Your task to perform on an android device: Empty the shopping cart on amazon. Search for lenovo thinkpad on amazon, select the first entry, and add it to the cart. Image 0: 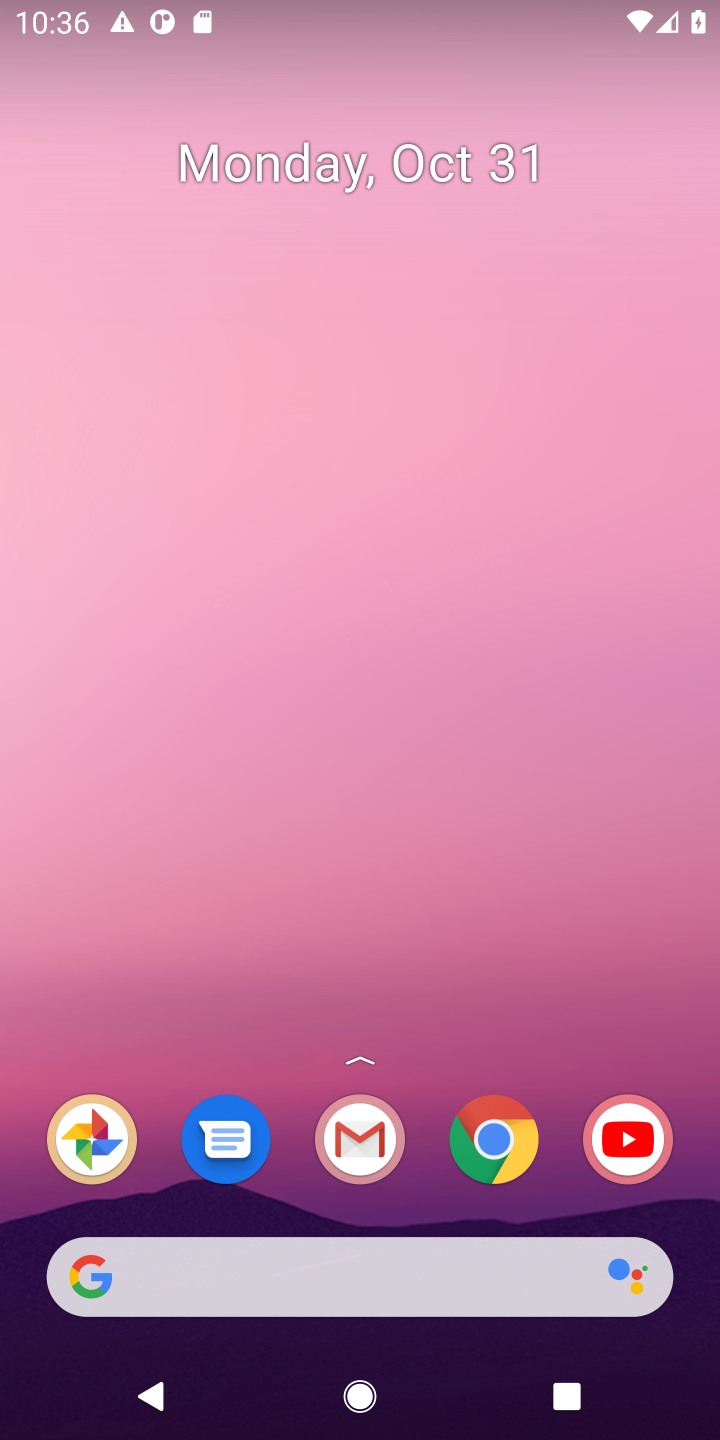
Step 0: press home button
Your task to perform on an android device: Empty the shopping cart on amazon. Search for lenovo thinkpad on amazon, select the first entry, and add it to the cart. Image 1: 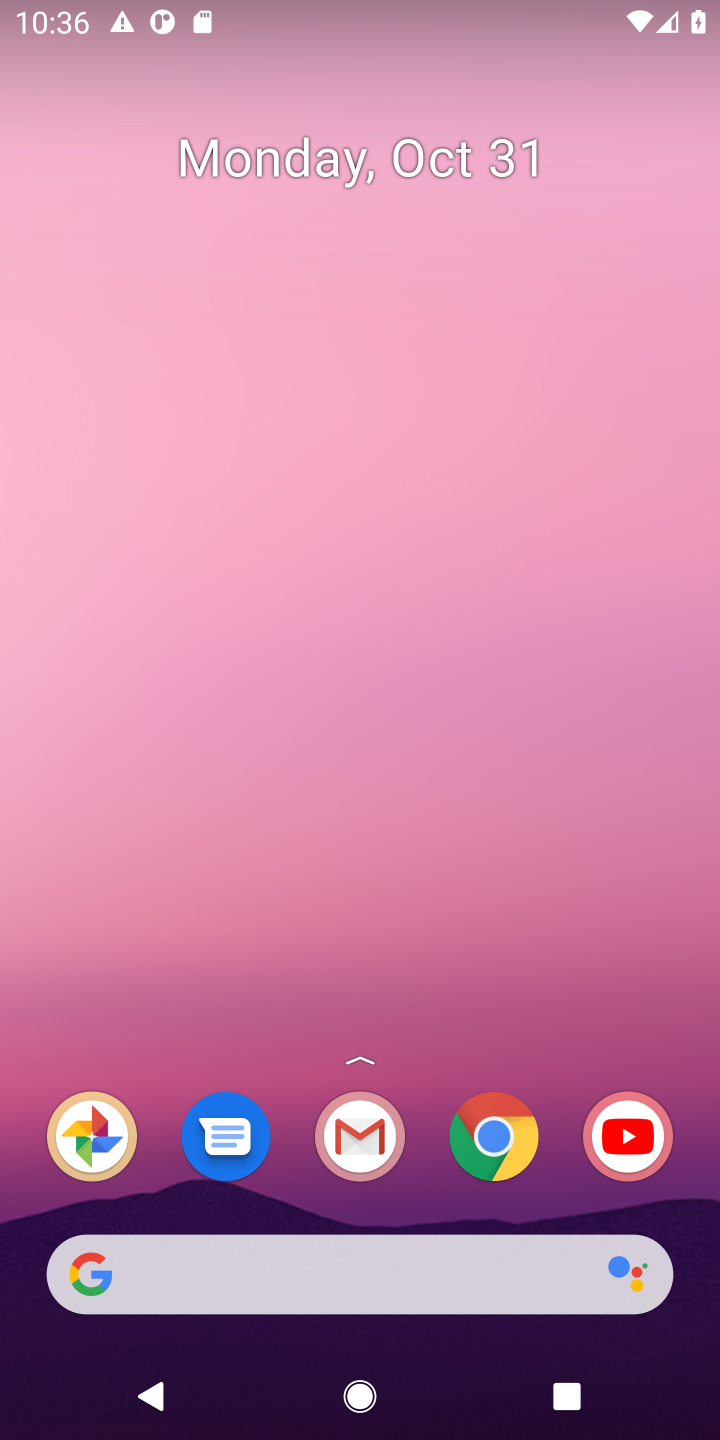
Step 1: click (126, 1264)
Your task to perform on an android device: Empty the shopping cart on amazon. Search for lenovo thinkpad on amazon, select the first entry, and add it to the cart. Image 2: 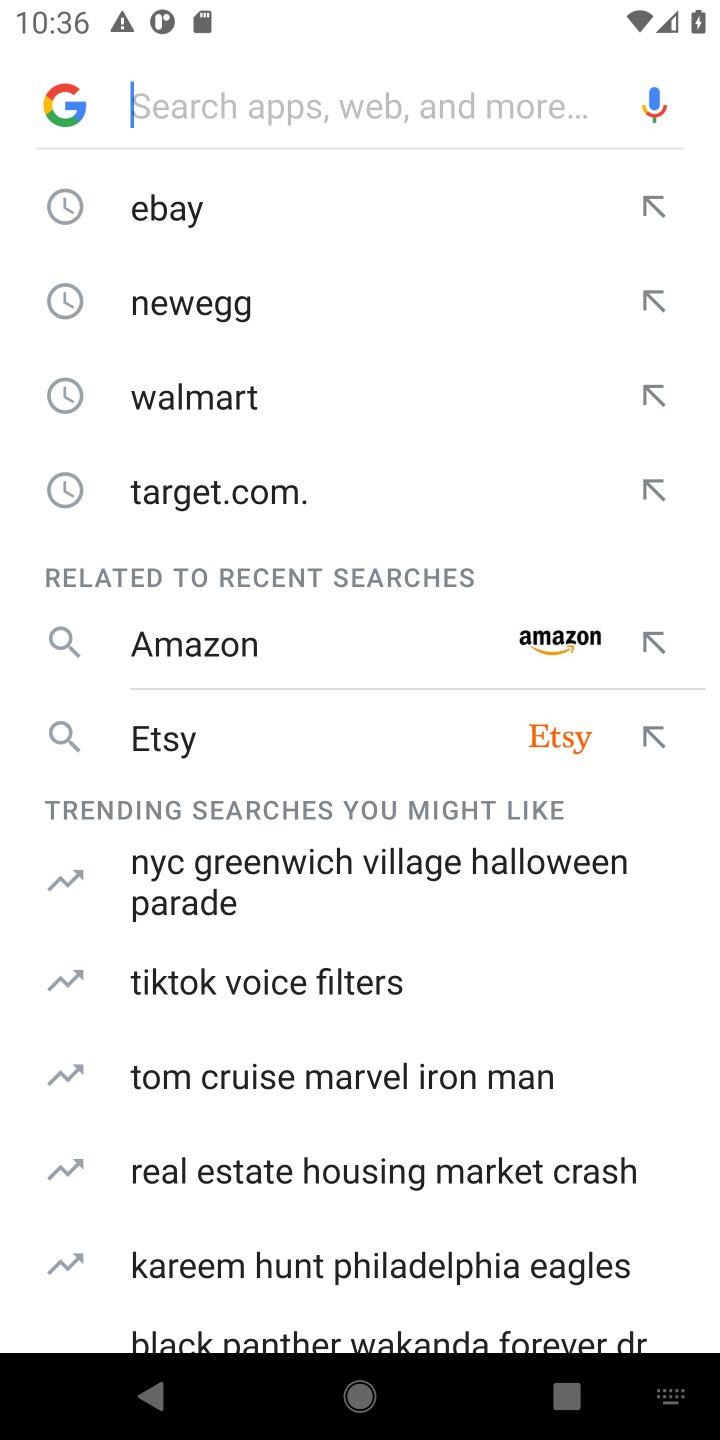
Step 2: type " amazon"
Your task to perform on an android device: Empty the shopping cart on amazon. Search for lenovo thinkpad on amazon, select the first entry, and add it to the cart. Image 3: 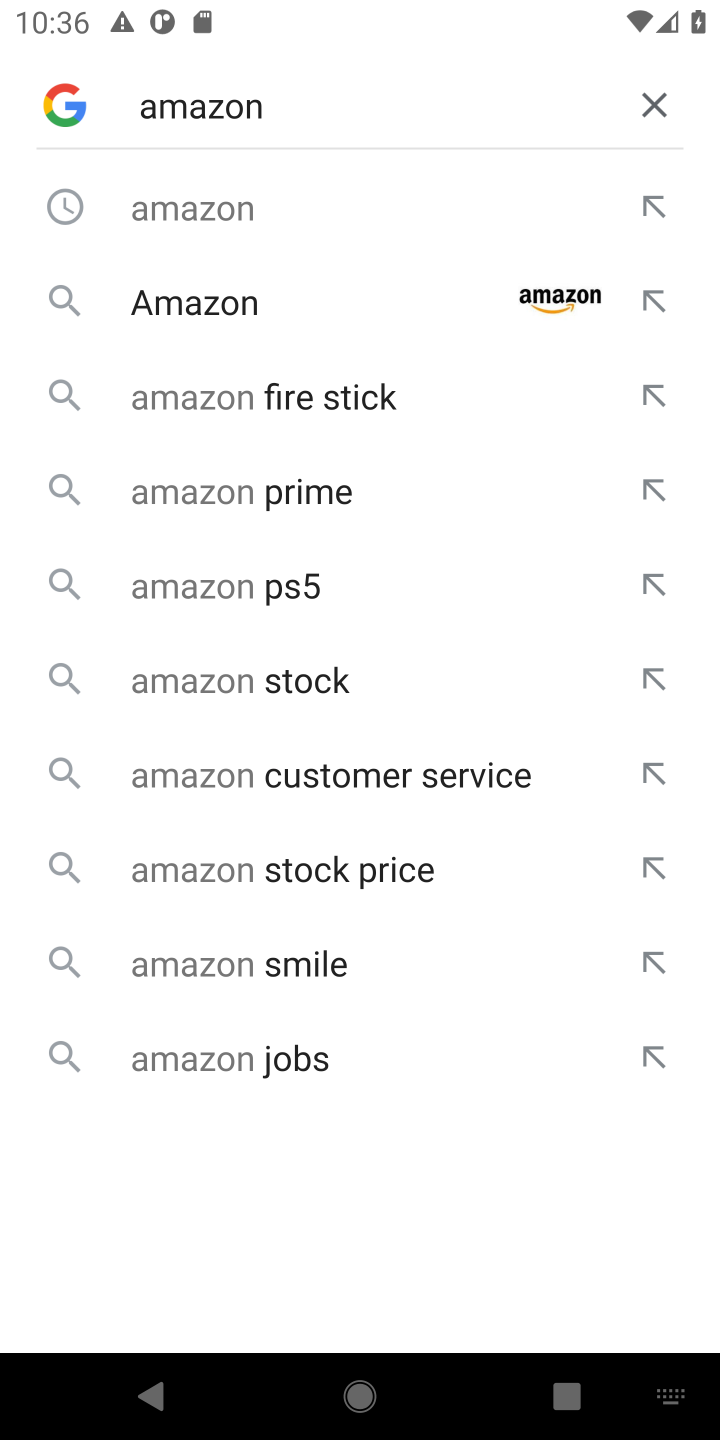
Step 3: press enter
Your task to perform on an android device: Empty the shopping cart on amazon. Search for lenovo thinkpad on amazon, select the first entry, and add it to the cart. Image 4: 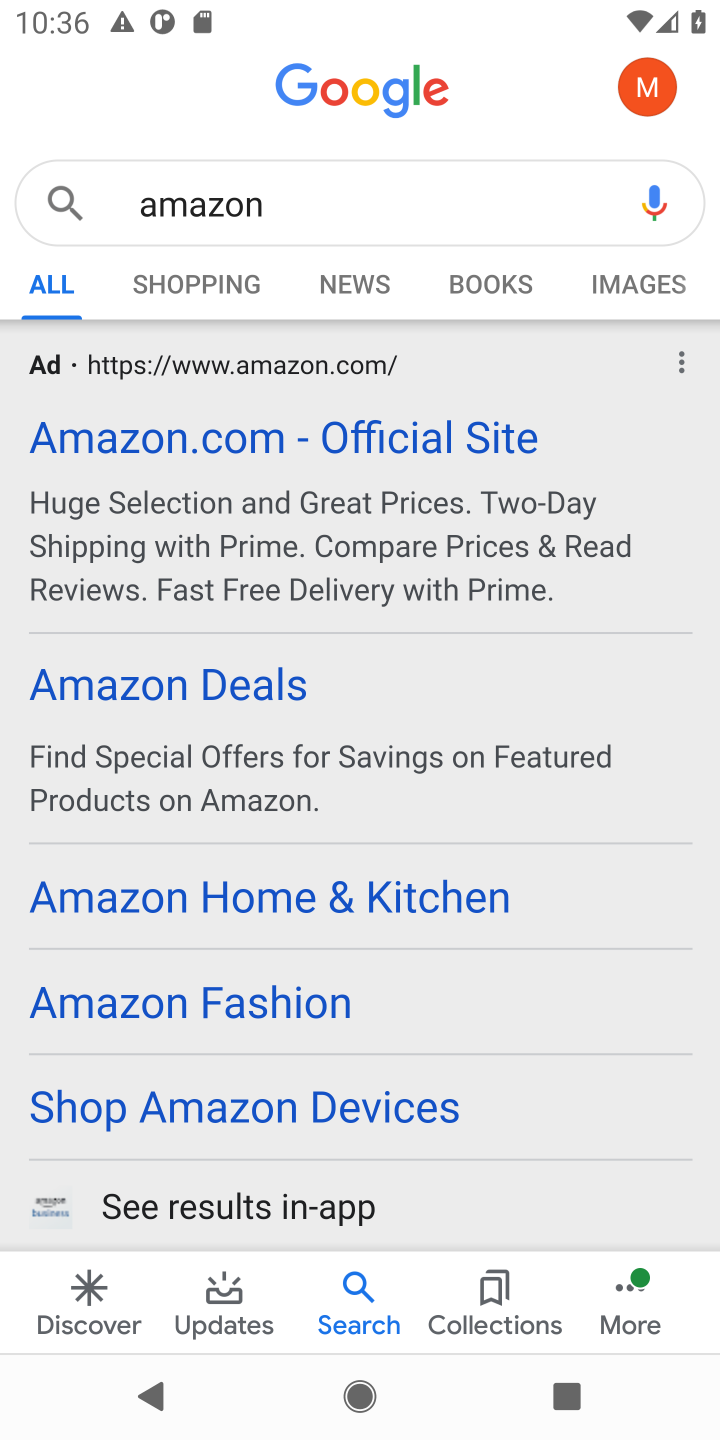
Step 4: click (247, 435)
Your task to perform on an android device: Empty the shopping cart on amazon. Search for lenovo thinkpad on amazon, select the first entry, and add it to the cart. Image 5: 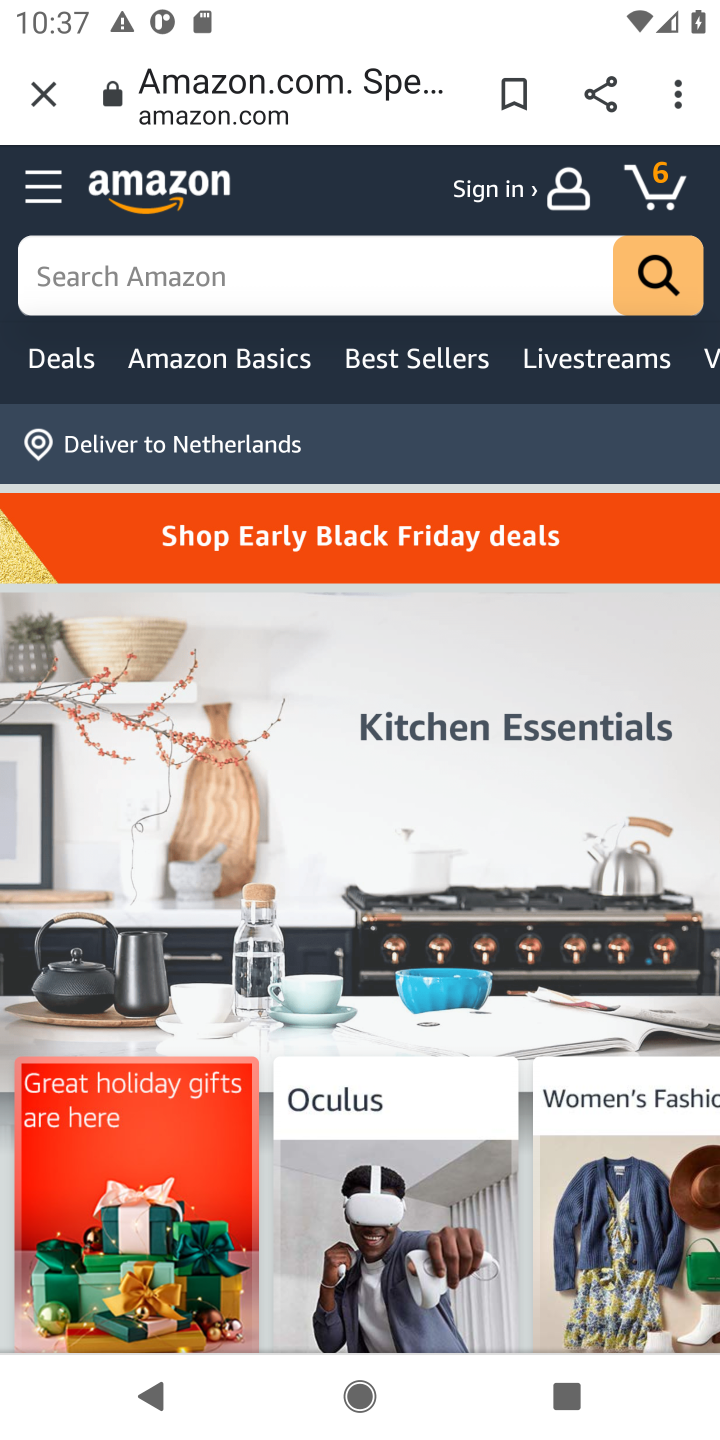
Step 5: click (647, 171)
Your task to perform on an android device: Empty the shopping cart on amazon. Search for lenovo thinkpad on amazon, select the first entry, and add it to the cart. Image 6: 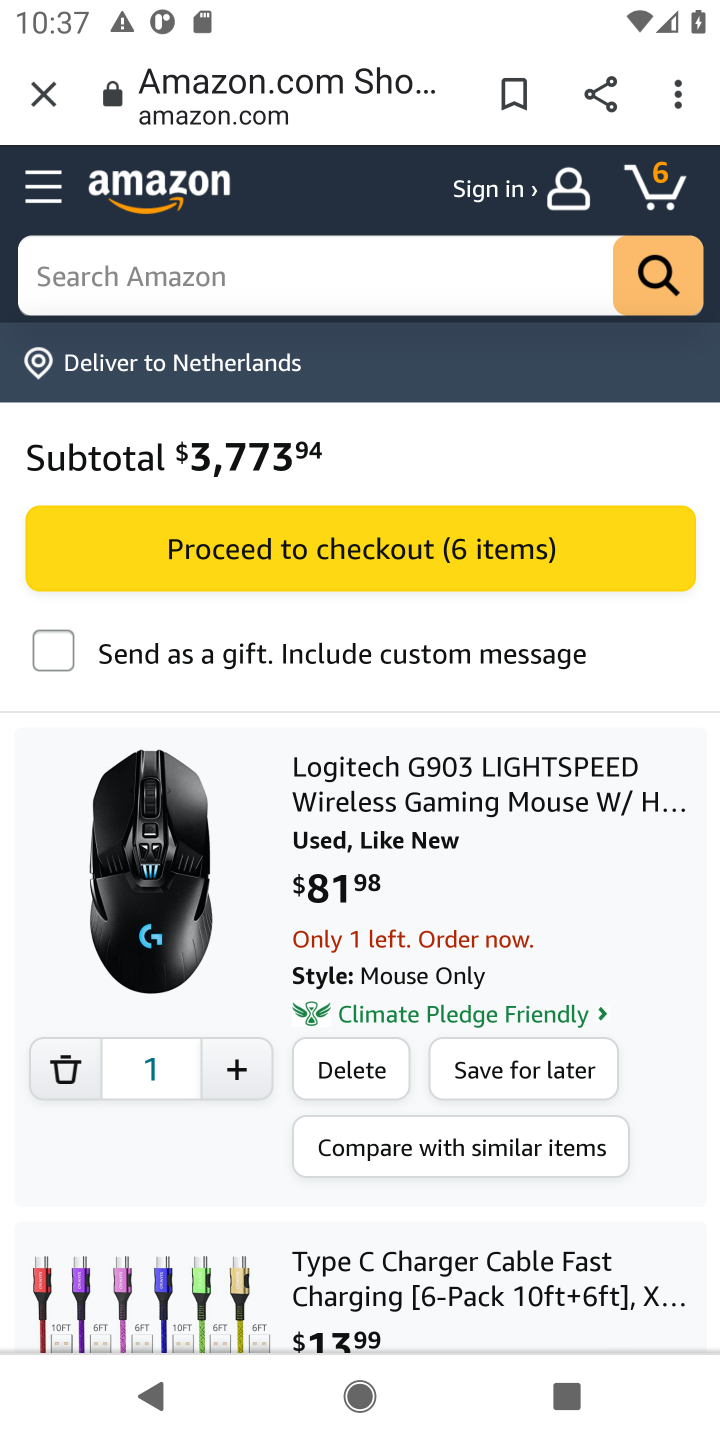
Step 6: click (69, 1057)
Your task to perform on an android device: Empty the shopping cart on amazon. Search for lenovo thinkpad on amazon, select the first entry, and add it to the cart. Image 7: 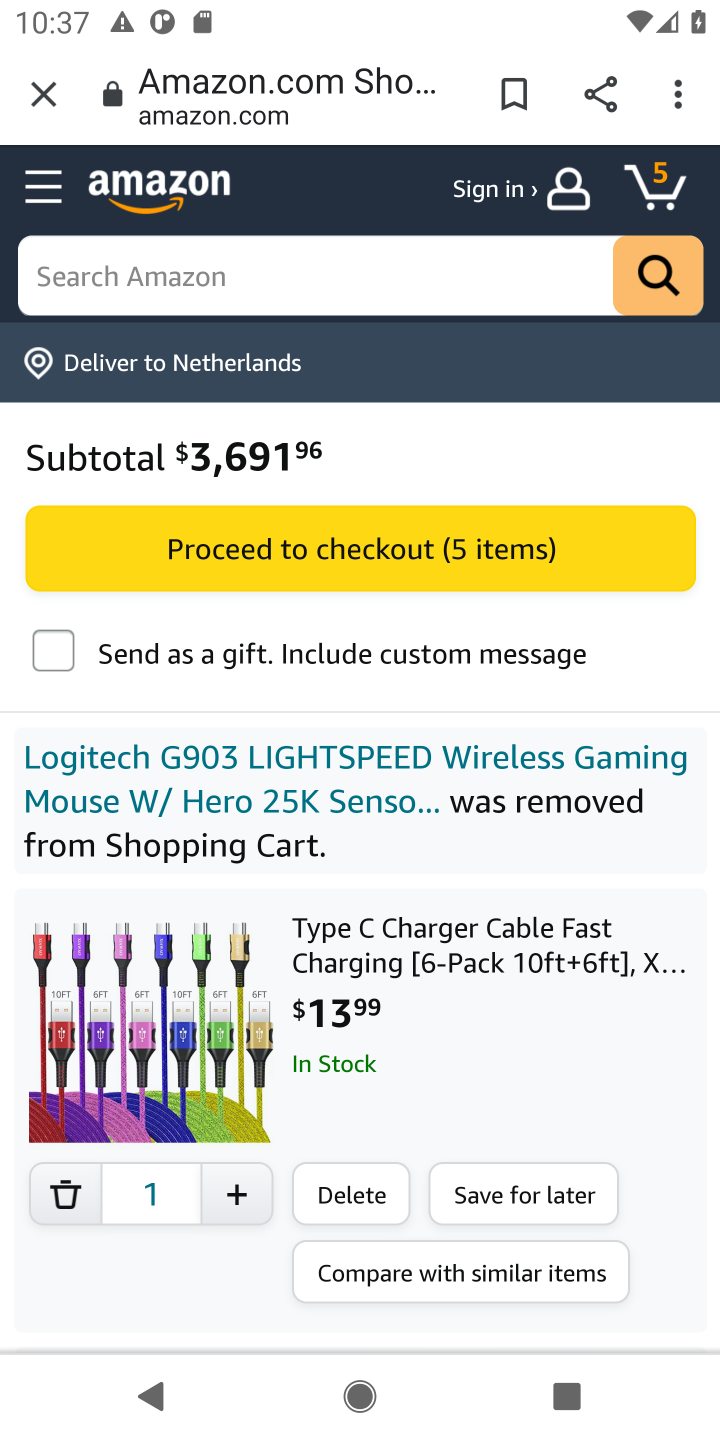
Step 7: click (69, 1199)
Your task to perform on an android device: Empty the shopping cart on amazon. Search for lenovo thinkpad on amazon, select the first entry, and add it to the cart. Image 8: 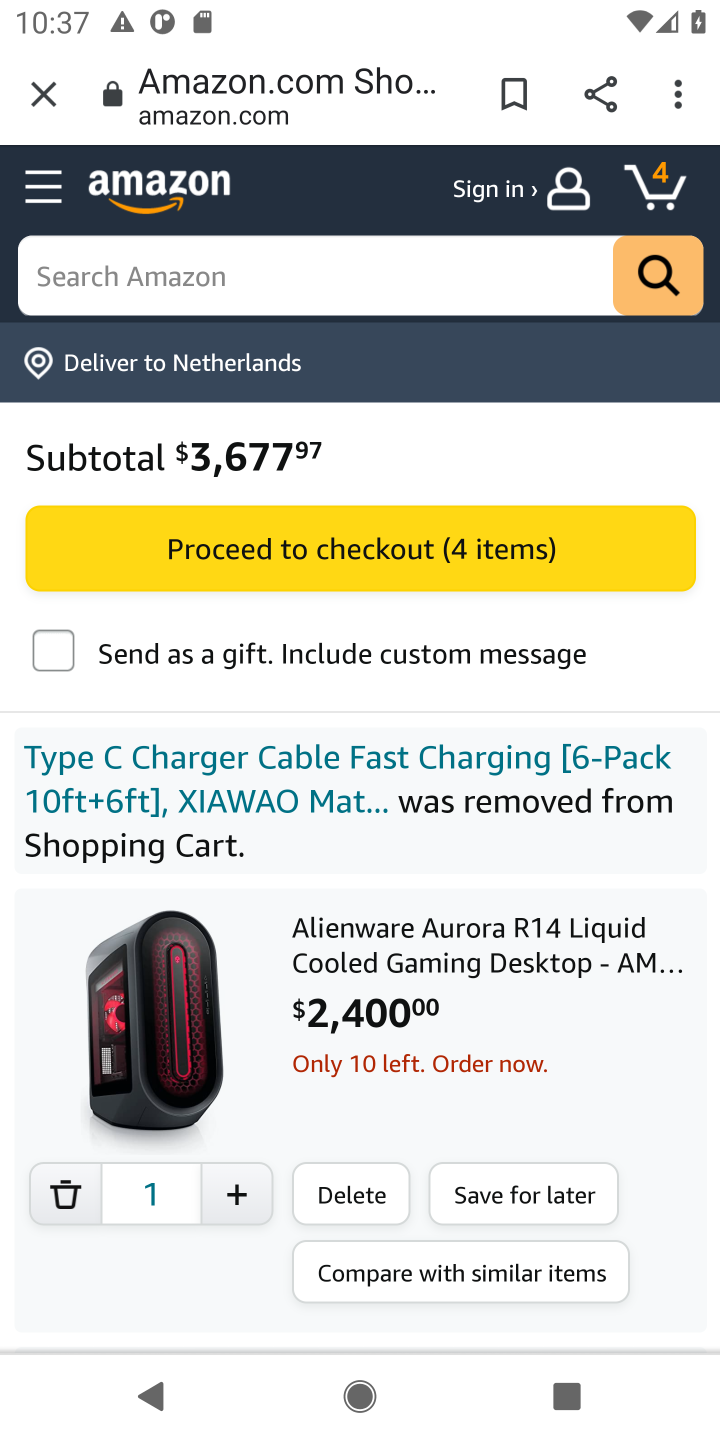
Step 8: click (69, 1199)
Your task to perform on an android device: Empty the shopping cart on amazon. Search for lenovo thinkpad on amazon, select the first entry, and add it to the cart. Image 9: 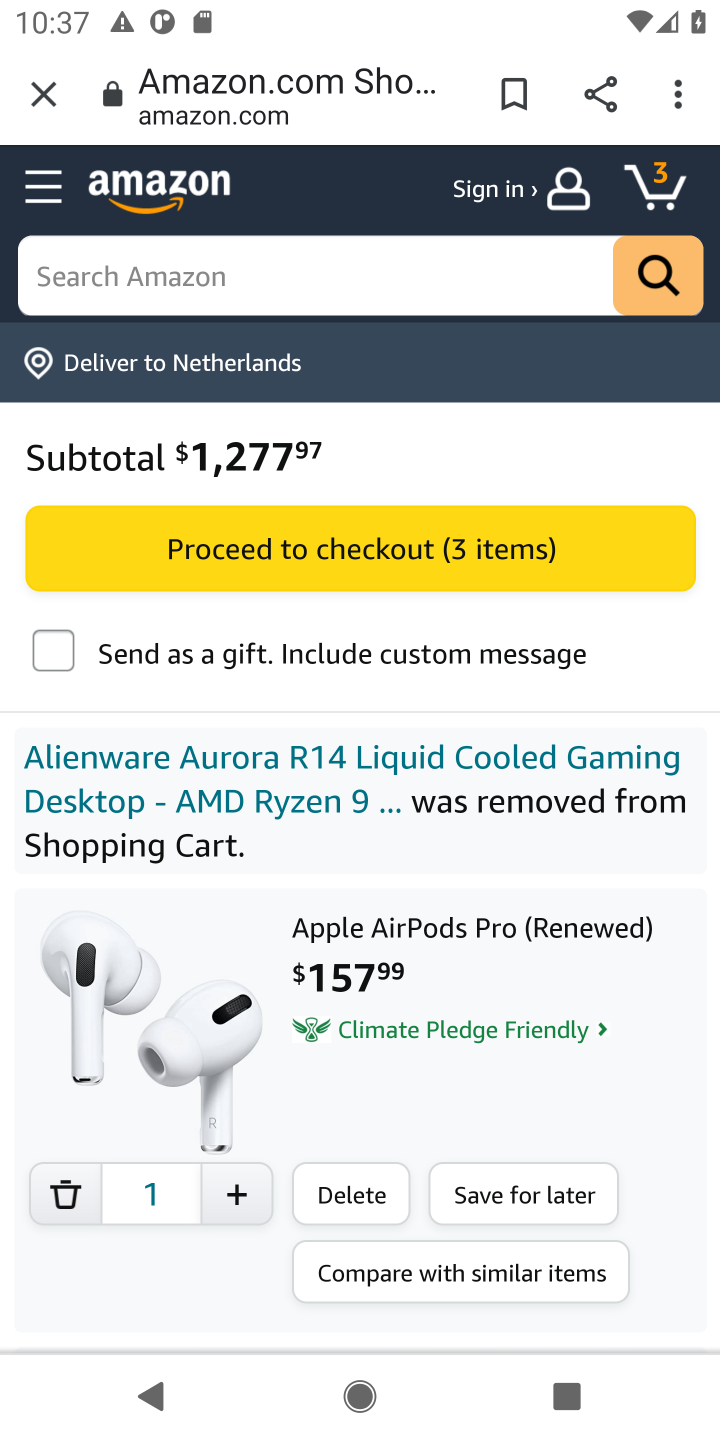
Step 9: click (69, 1199)
Your task to perform on an android device: Empty the shopping cart on amazon. Search for lenovo thinkpad on amazon, select the first entry, and add it to the cart. Image 10: 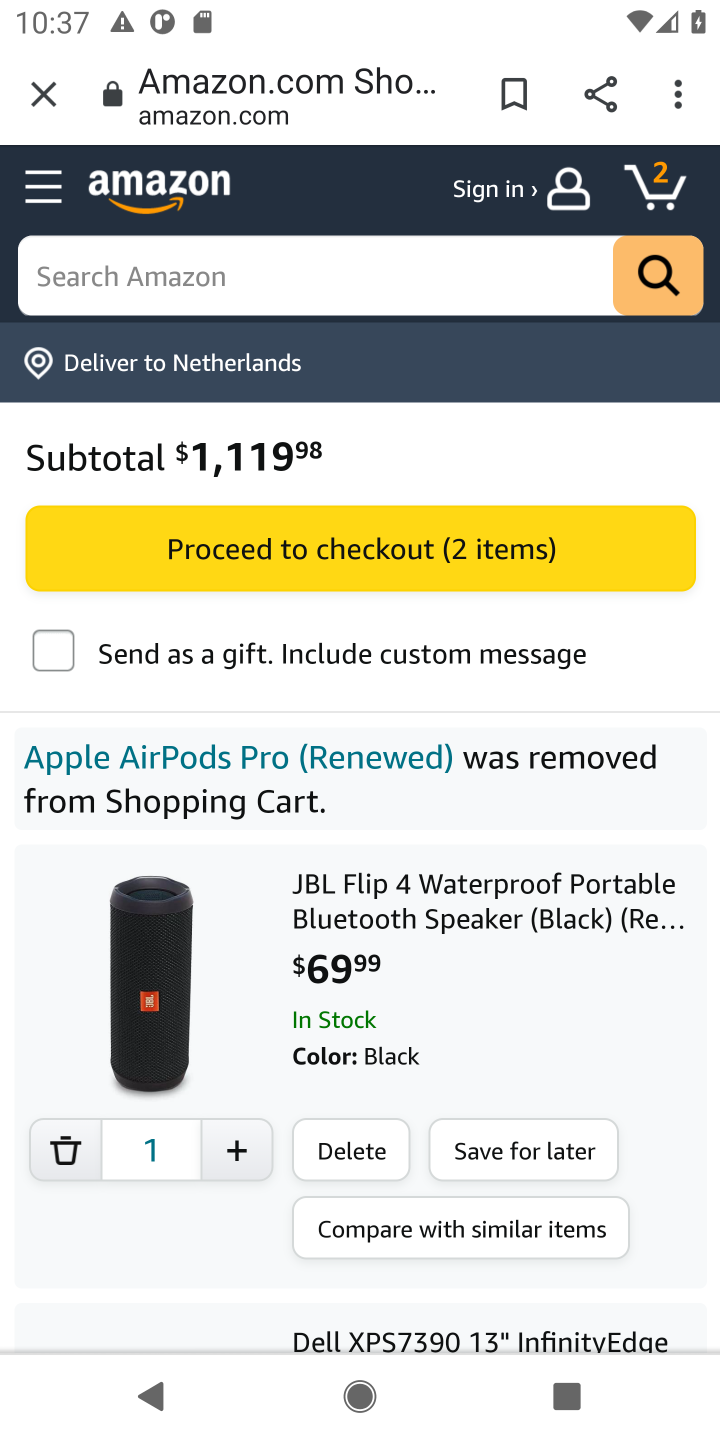
Step 10: click (53, 1145)
Your task to perform on an android device: Empty the shopping cart on amazon. Search for lenovo thinkpad on amazon, select the first entry, and add it to the cart. Image 11: 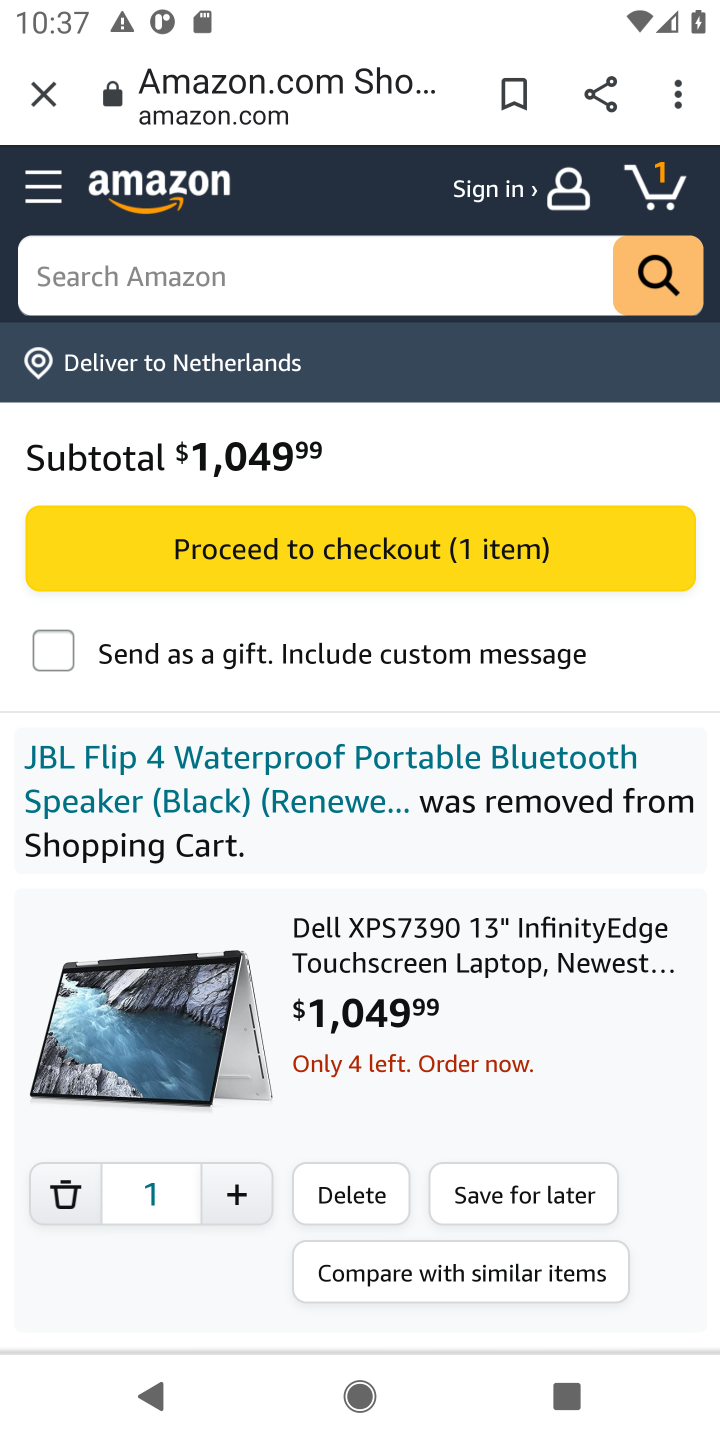
Step 11: click (56, 1211)
Your task to perform on an android device: Empty the shopping cart on amazon. Search for lenovo thinkpad on amazon, select the first entry, and add it to the cart. Image 12: 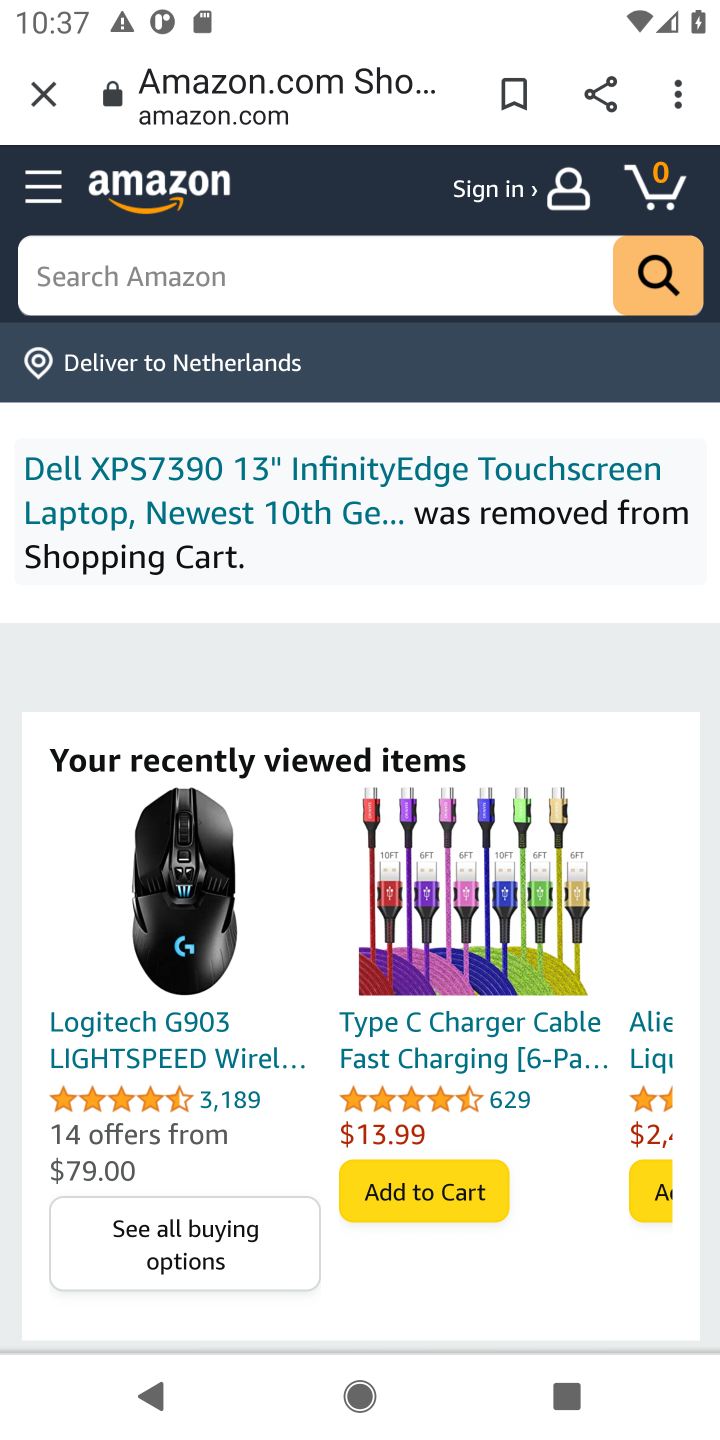
Step 12: click (209, 272)
Your task to perform on an android device: Empty the shopping cart on amazon. Search for lenovo thinkpad on amazon, select the first entry, and add it to the cart. Image 13: 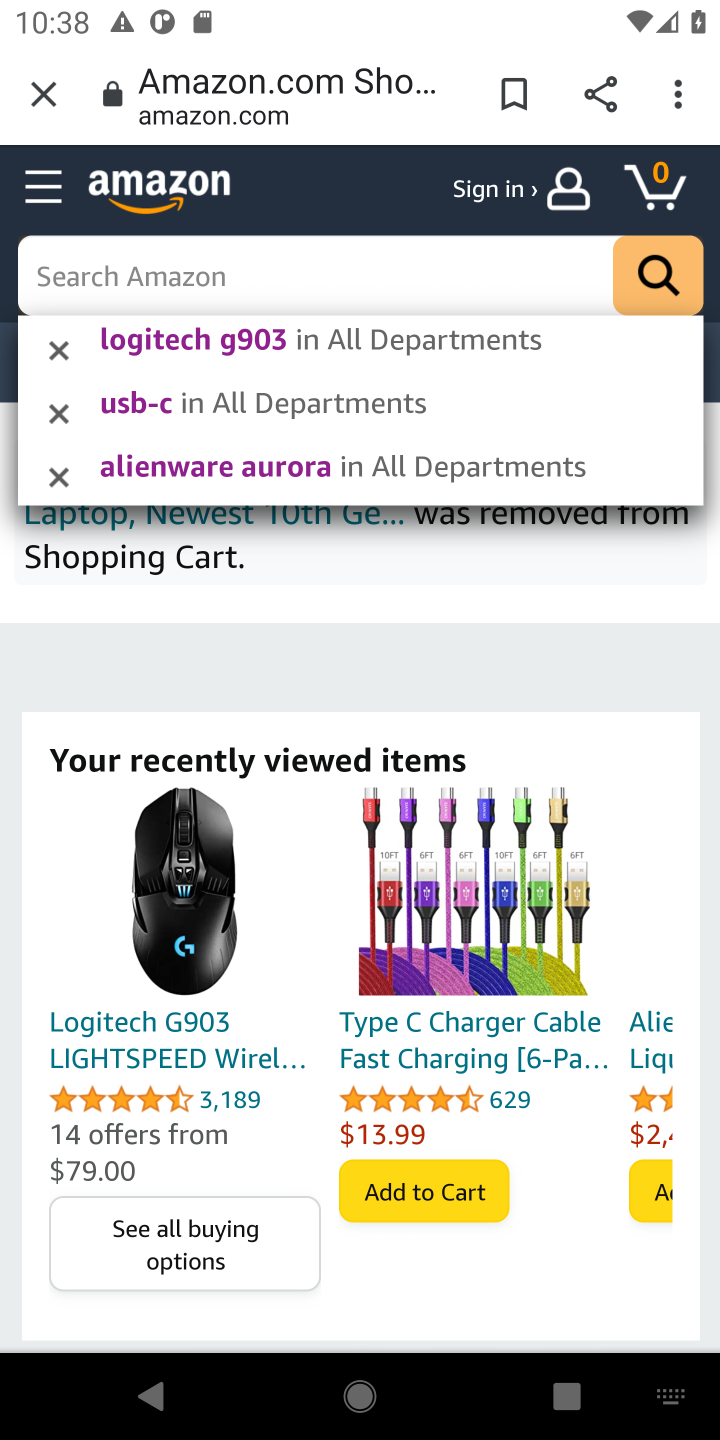
Step 13: type " lenovo thinkpad"
Your task to perform on an android device: Empty the shopping cart on amazon. Search for lenovo thinkpad on amazon, select the first entry, and add it to the cart. Image 14: 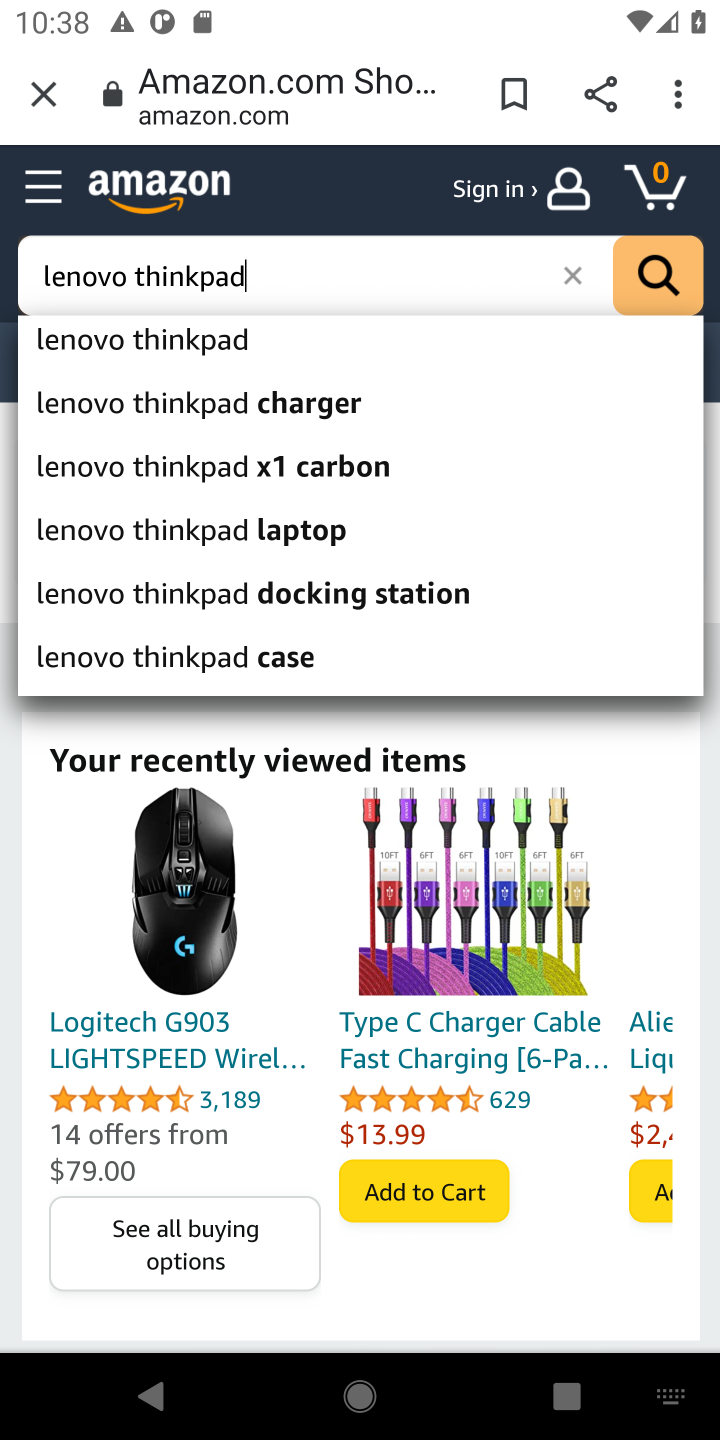
Step 14: click (655, 271)
Your task to perform on an android device: Empty the shopping cart on amazon. Search for lenovo thinkpad on amazon, select the first entry, and add it to the cart. Image 15: 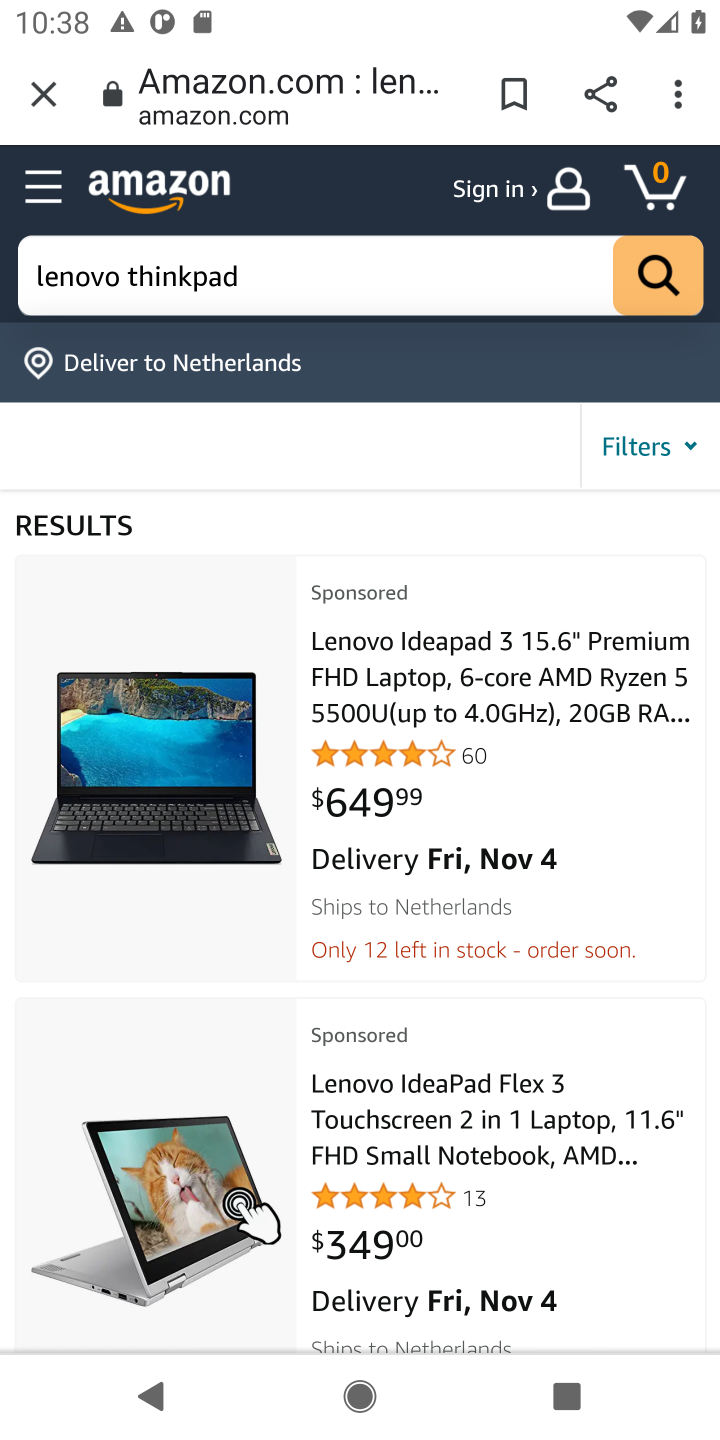
Step 15: drag from (562, 1116) to (545, 617)
Your task to perform on an android device: Empty the shopping cart on amazon. Search for lenovo thinkpad on amazon, select the first entry, and add it to the cart. Image 16: 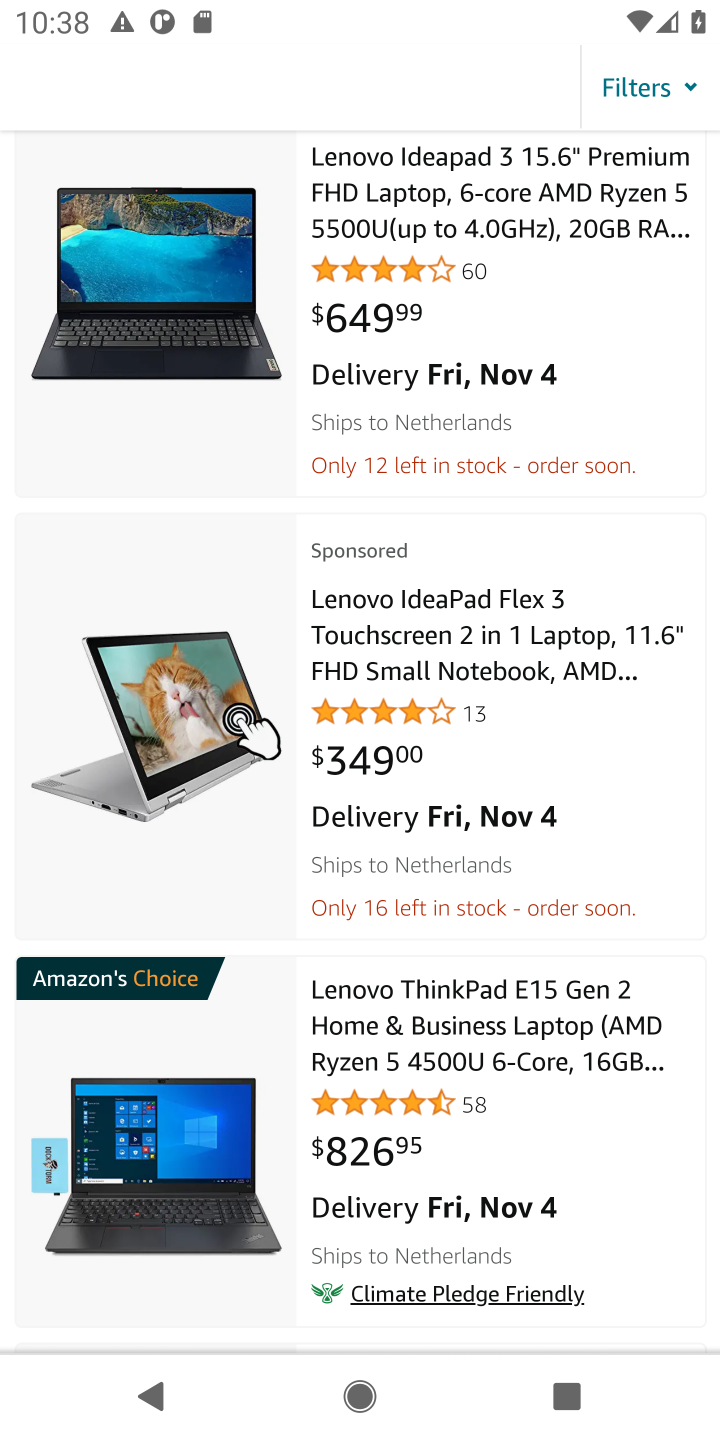
Step 16: drag from (497, 1039) to (485, 631)
Your task to perform on an android device: Empty the shopping cart on amazon. Search for lenovo thinkpad on amazon, select the first entry, and add it to the cart. Image 17: 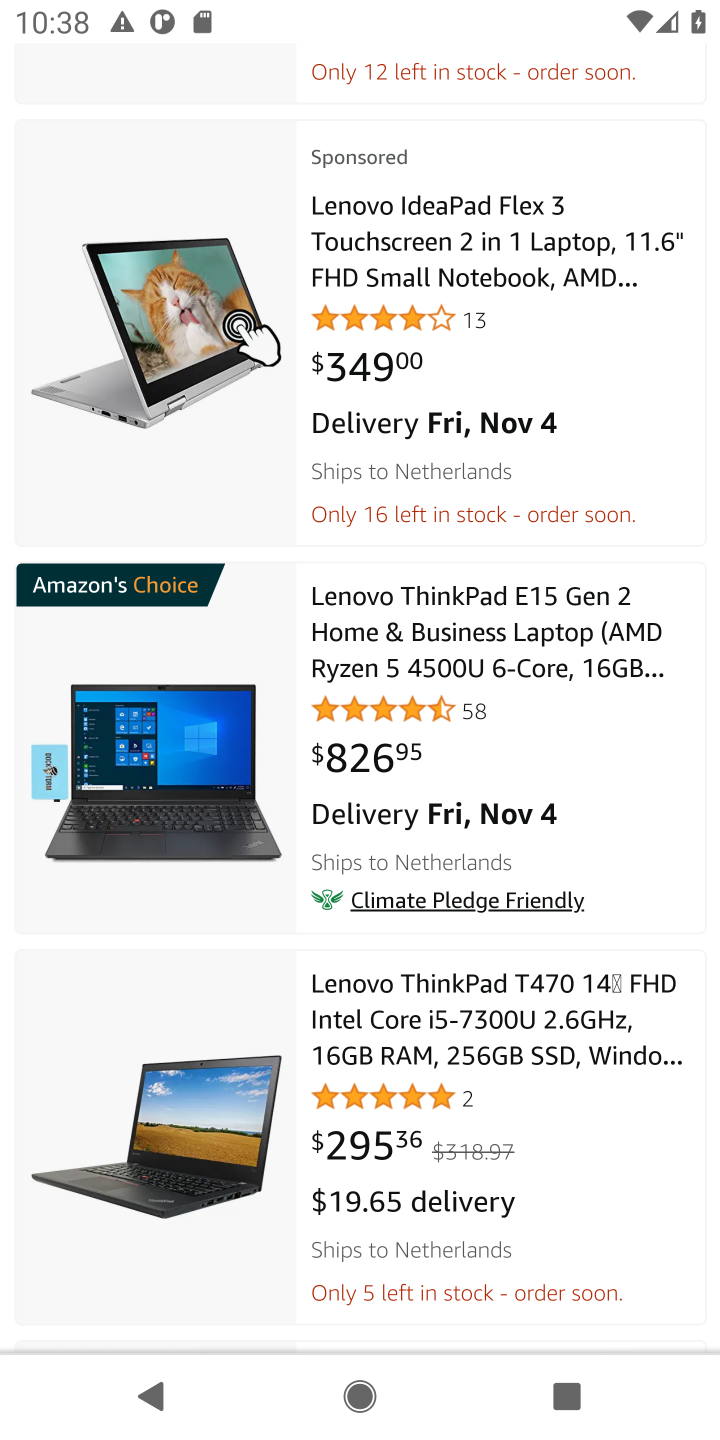
Step 17: click (488, 619)
Your task to perform on an android device: Empty the shopping cart on amazon. Search for lenovo thinkpad on amazon, select the first entry, and add it to the cart. Image 18: 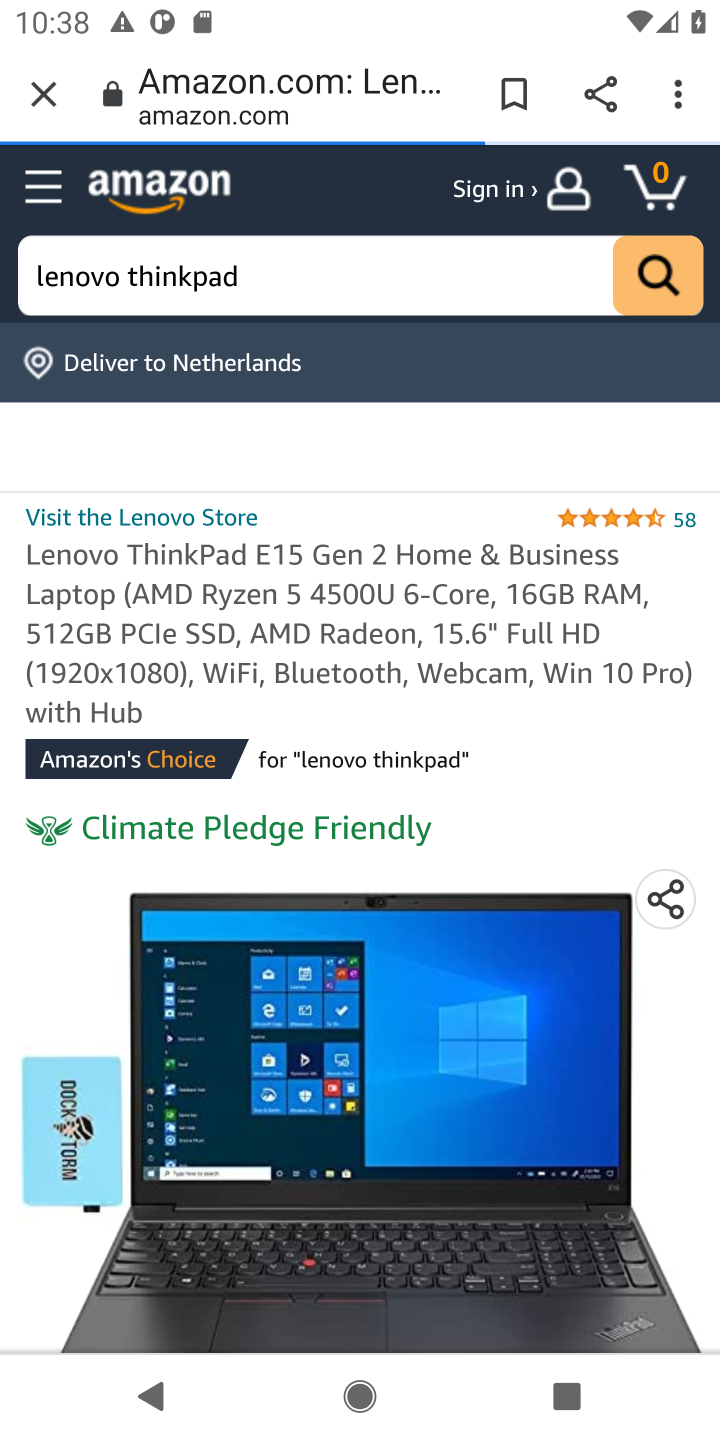
Step 18: drag from (399, 1058) to (416, 503)
Your task to perform on an android device: Empty the shopping cart on amazon. Search for lenovo thinkpad on amazon, select the first entry, and add it to the cart. Image 19: 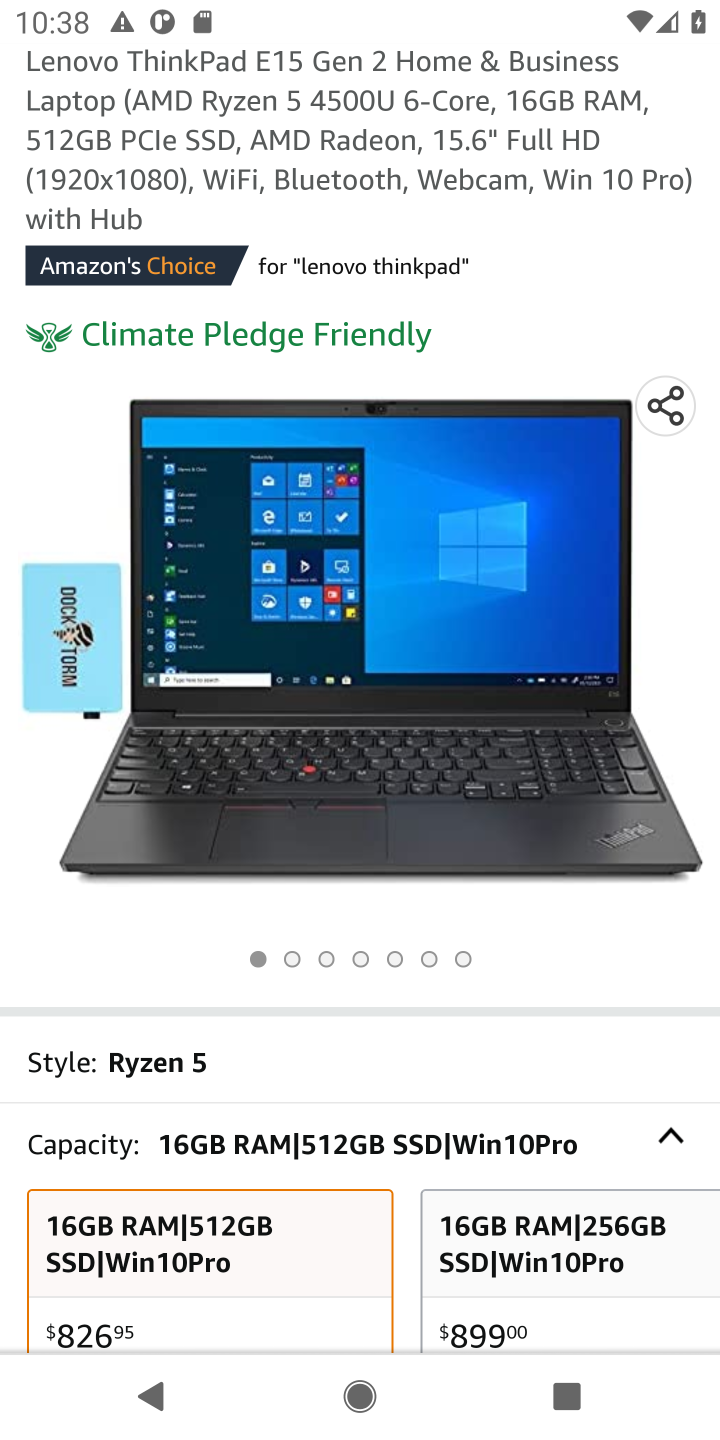
Step 19: drag from (371, 1021) to (416, 479)
Your task to perform on an android device: Empty the shopping cart on amazon. Search for lenovo thinkpad on amazon, select the first entry, and add it to the cart. Image 20: 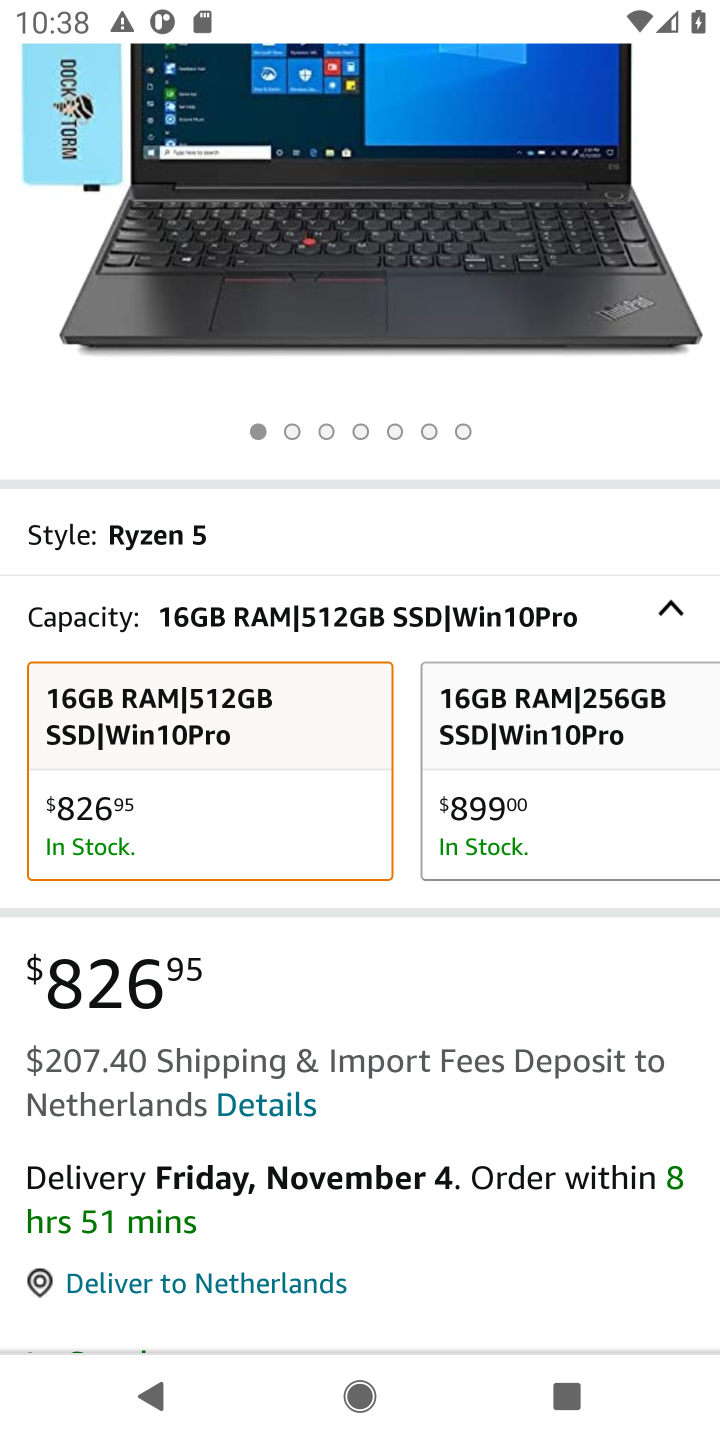
Step 20: drag from (382, 1109) to (424, 474)
Your task to perform on an android device: Empty the shopping cart on amazon. Search for lenovo thinkpad on amazon, select the first entry, and add it to the cart. Image 21: 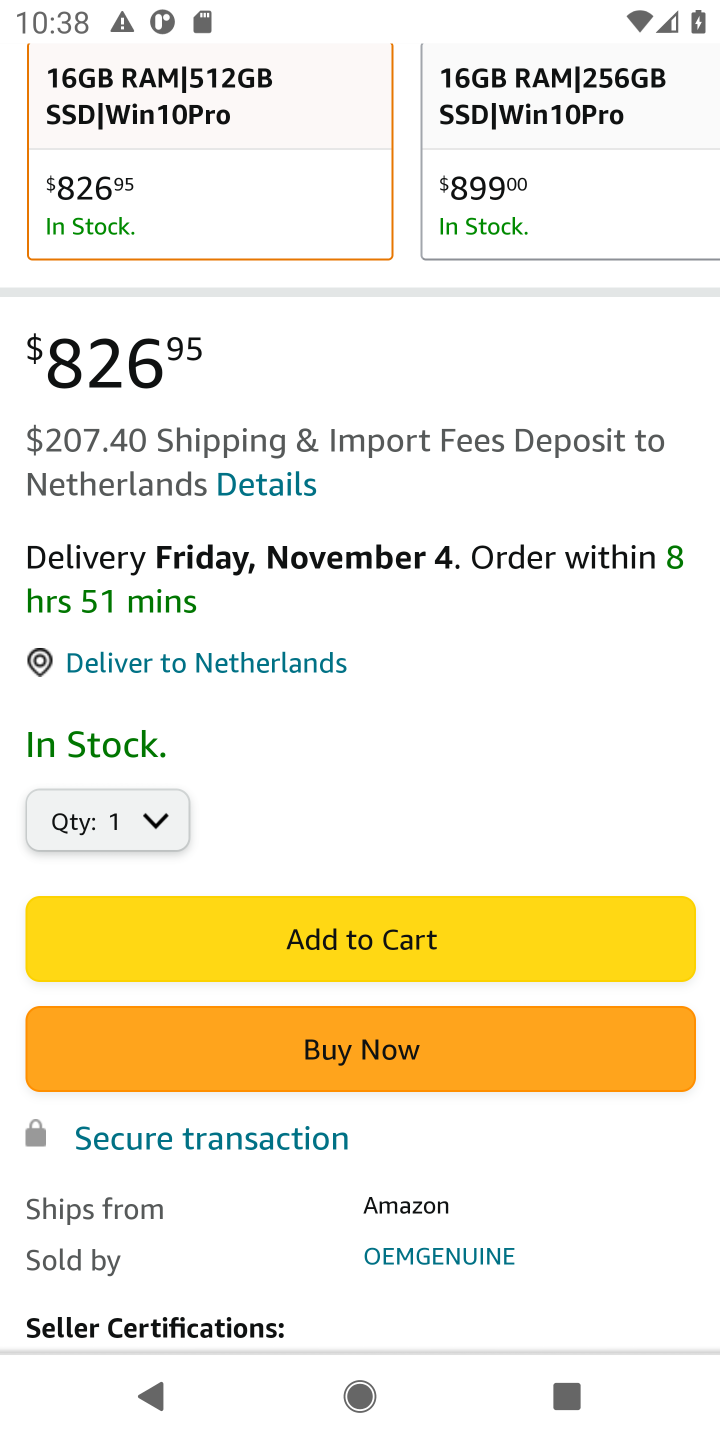
Step 21: click (347, 937)
Your task to perform on an android device: Empty the shopping cart on amazon. Search for lenovo thinkpad on amazon, select the first entry, and add it to the cart. Image 22: 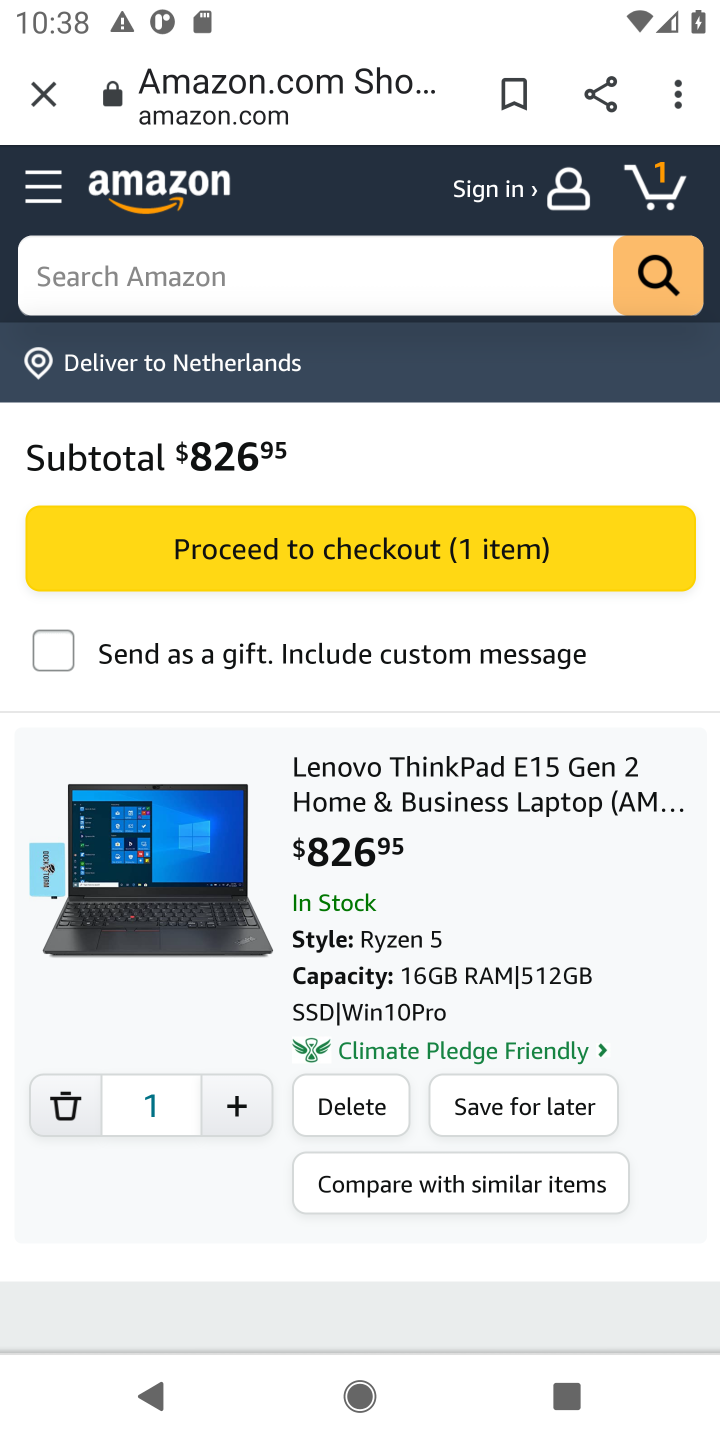
Step 22: task complete